Your task to perform on an android device: toggle wifi Image 0: 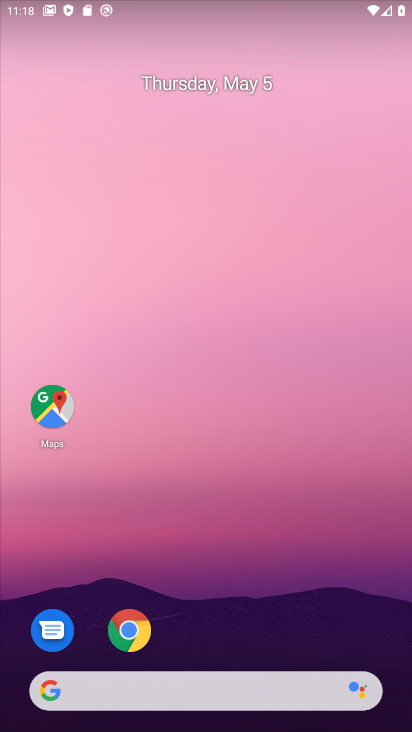
Step 0: drag from (284, 424) to (318, 166)
Your task to perform on an android device: toggle wifi Image 1: 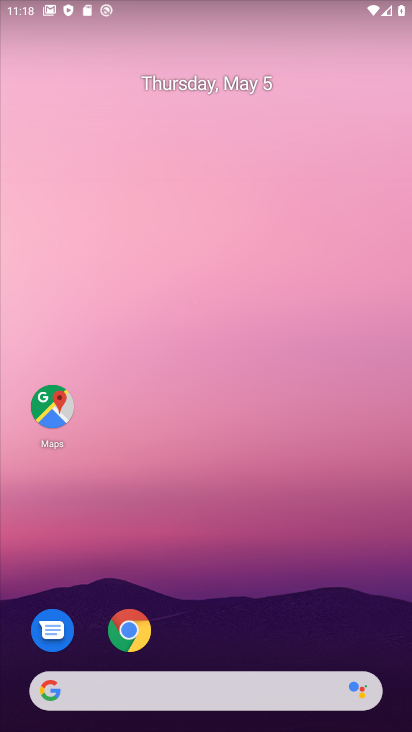
Step 1: drag from (236, 496) to (233, 30)
Your task to perform on an android device: toggle wifi Image 2: 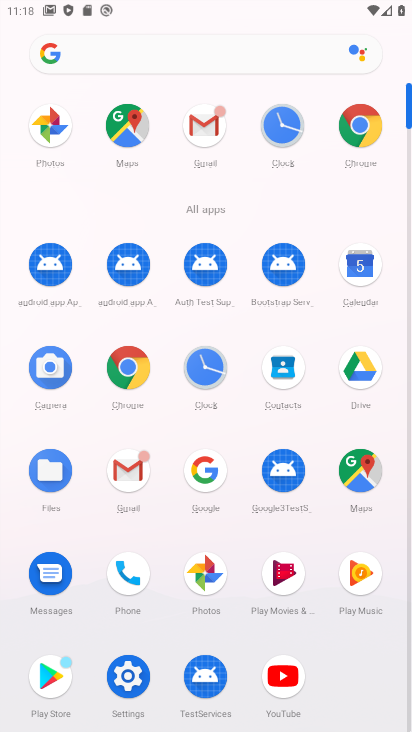
Step 2: click (130, 671)
Your task to perform on an android device: toggle wifi Image 3: 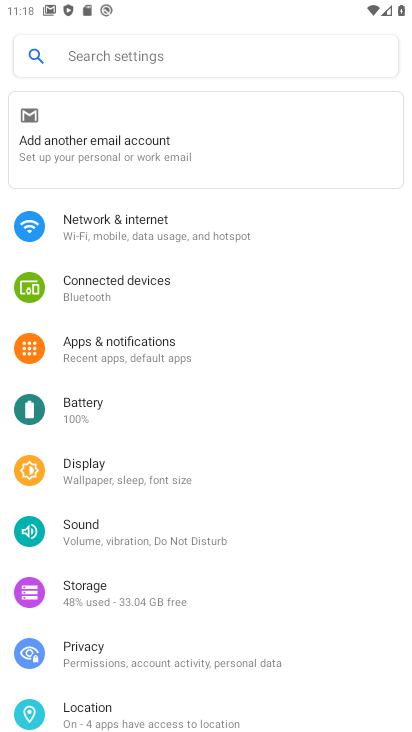
Step 3: click (148, 221)
Your task to perform on an android device: toggle wifi Image 4: 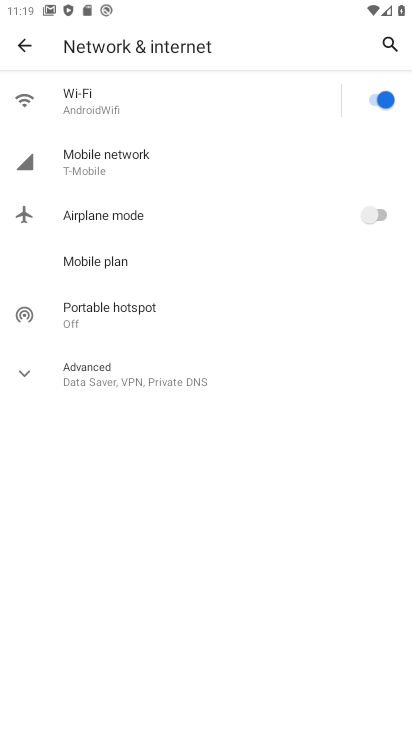
Step 4: click (189, 102)
Your task to perform on an android device: toggle wifi Image 5: 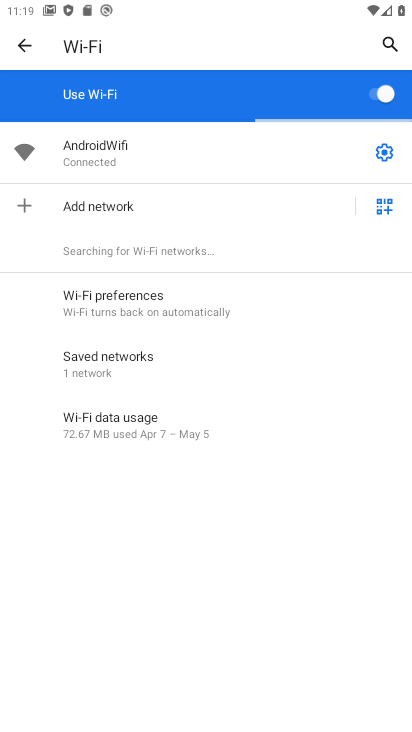
Step 5: click (365, 90)
Your task to perform on an android device: toggle wifi Image 6: 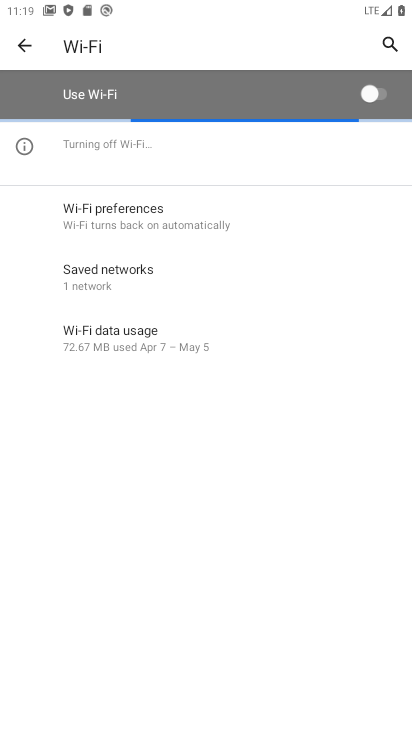
Step 6: task complete